Your task to perform on an android device: toggle translation in the chrome app Image 0: 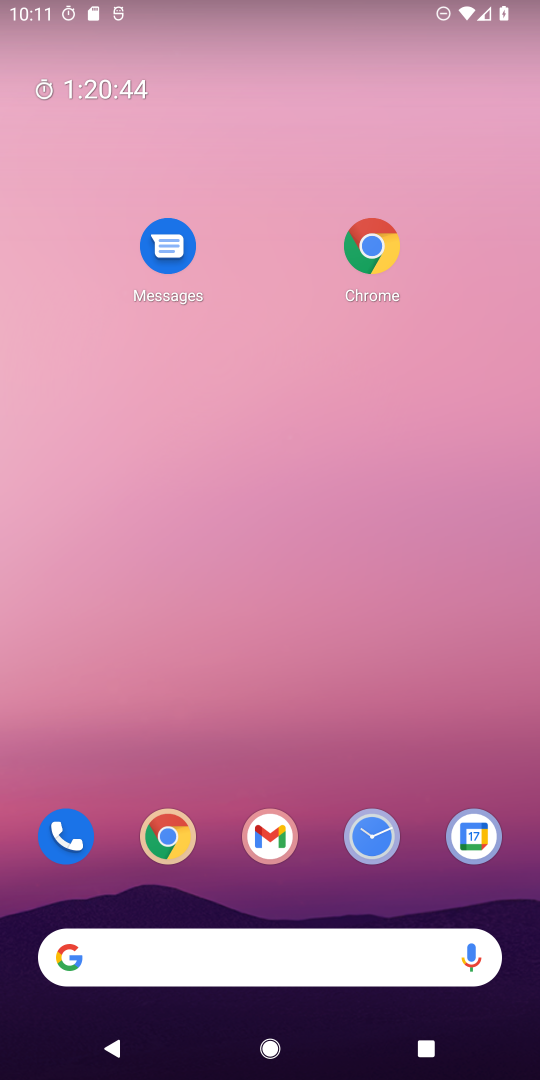
Step 0: drag from (182, 638) to (183, 149)
Your task to perform on an android device: toggle translation in the chrome app Image 1: 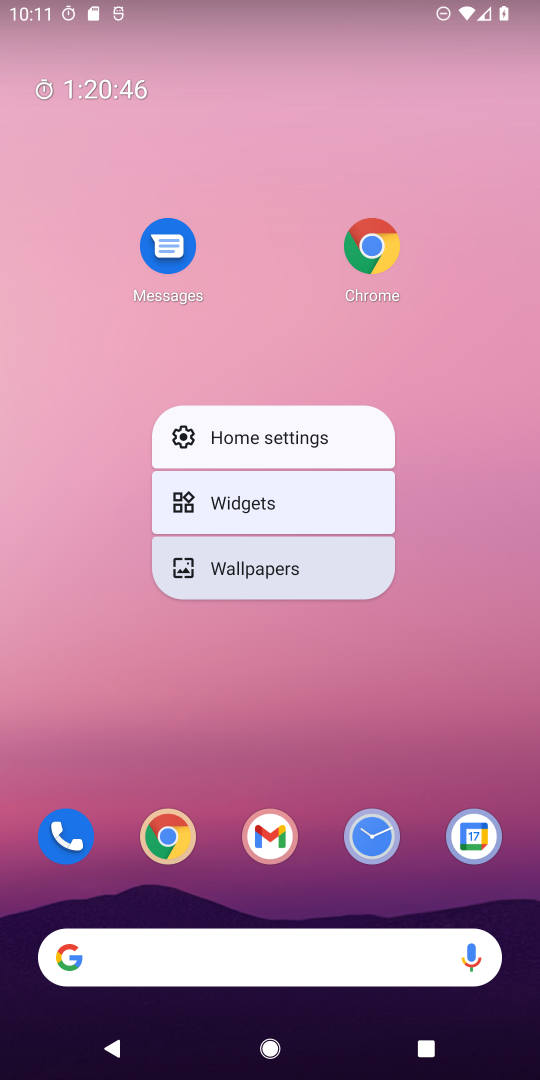
Step 1: click (334, 747)
Your task to perform on an android device: toggle translation in the chrome app Image 2: 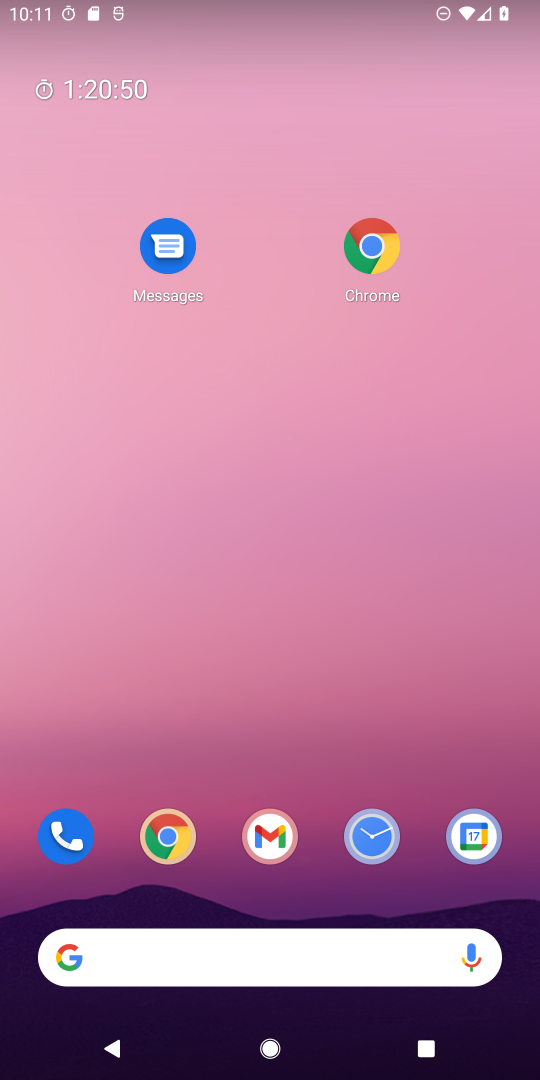
Step 2: drag from (310, 696) to (321, 400)
Your task to perform on an android device: toggle translation in the chrome app Image 3: 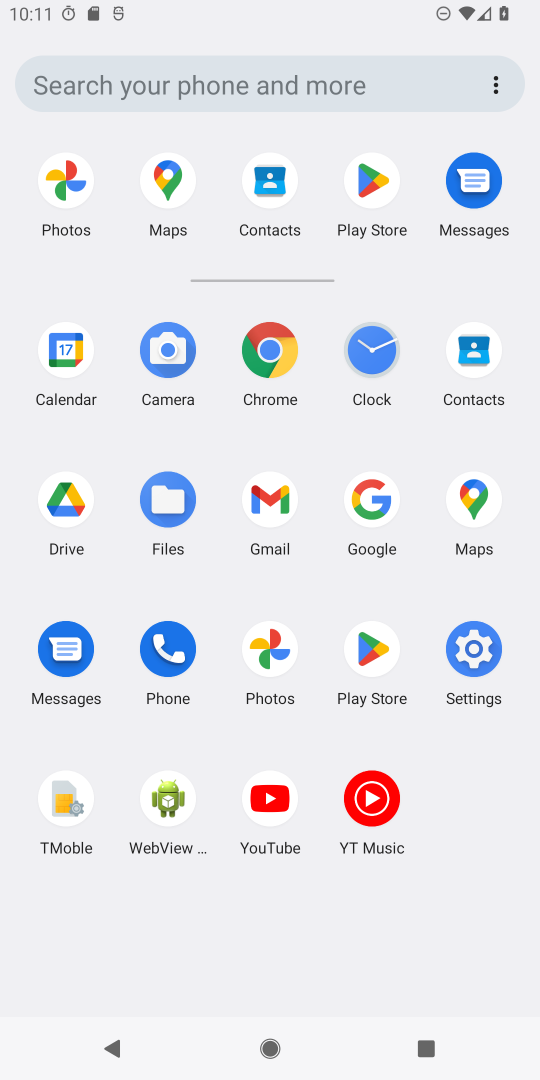
Step 3: click (256, 346)
Your task to perform on an android device: toggle translation in the chrome app Image 4: 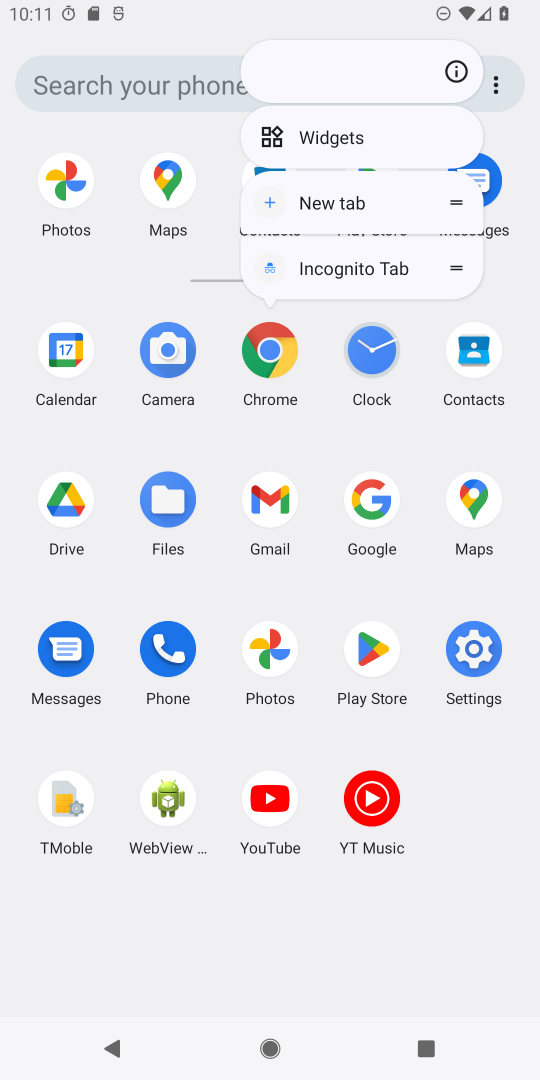
Step 4: click (280, 347)
Your task to perform on an android device: toggle translation in the chrome app Image 5: 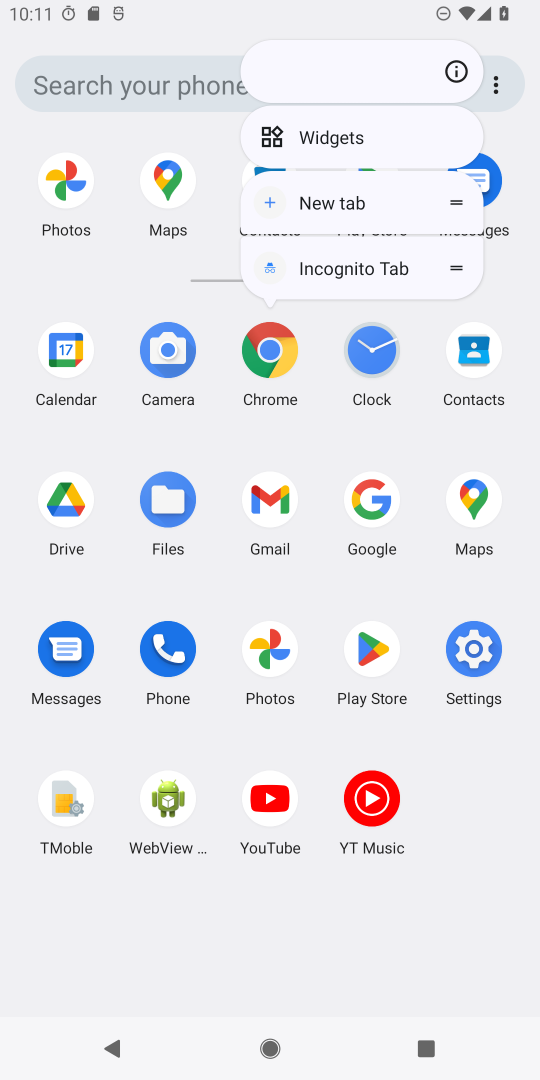
Step 5: click (282, 347)
Your task to perform on an android device: toggle translation in the chrome app Image 6: 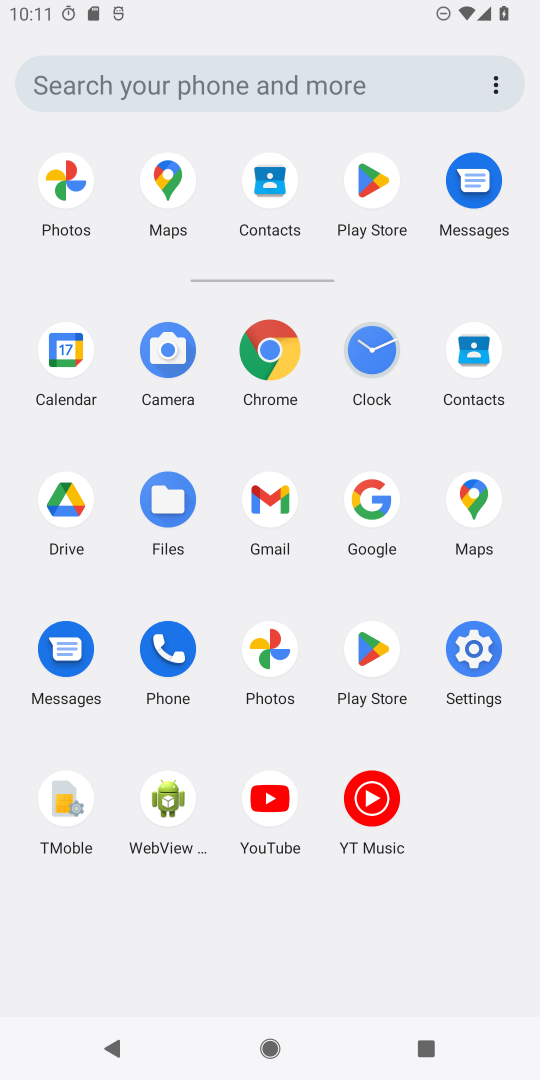
Step 6: click (282, 347)
Your task to perform on an android device: toggle translation in the chrome app Image 7: 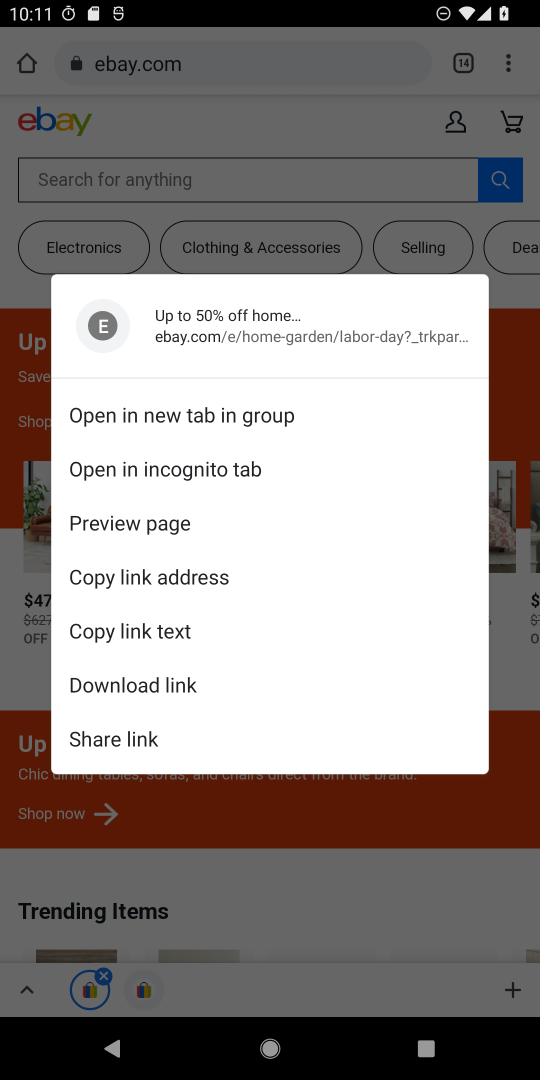
Step 7: click (514, 57)
Your task to perform on an android device: toggle translation in the chrome app Image 8: 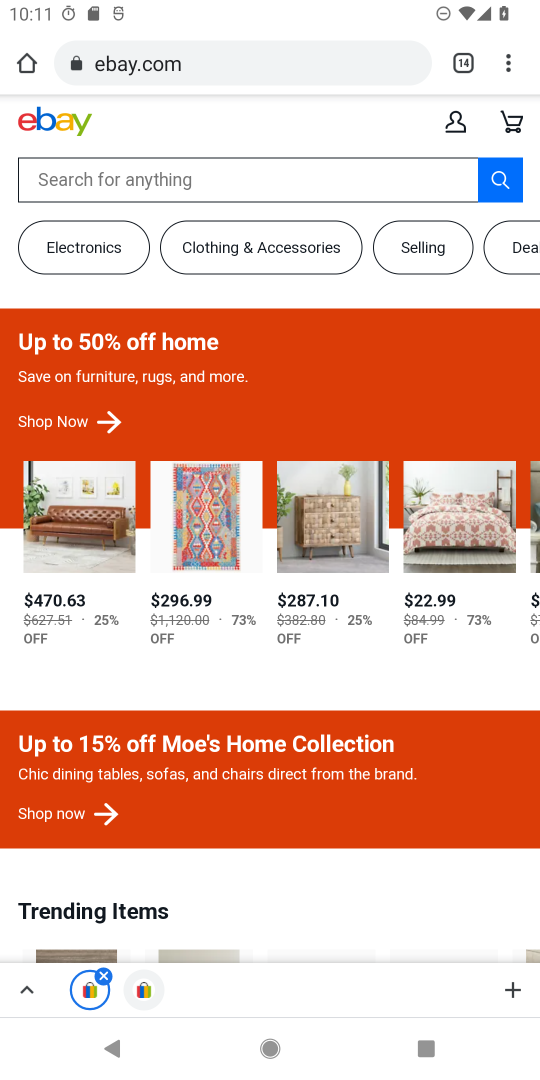
Step 8: click (495, 60)
Your task to perform on an android device: toggle translation in the chrome app Image 9: 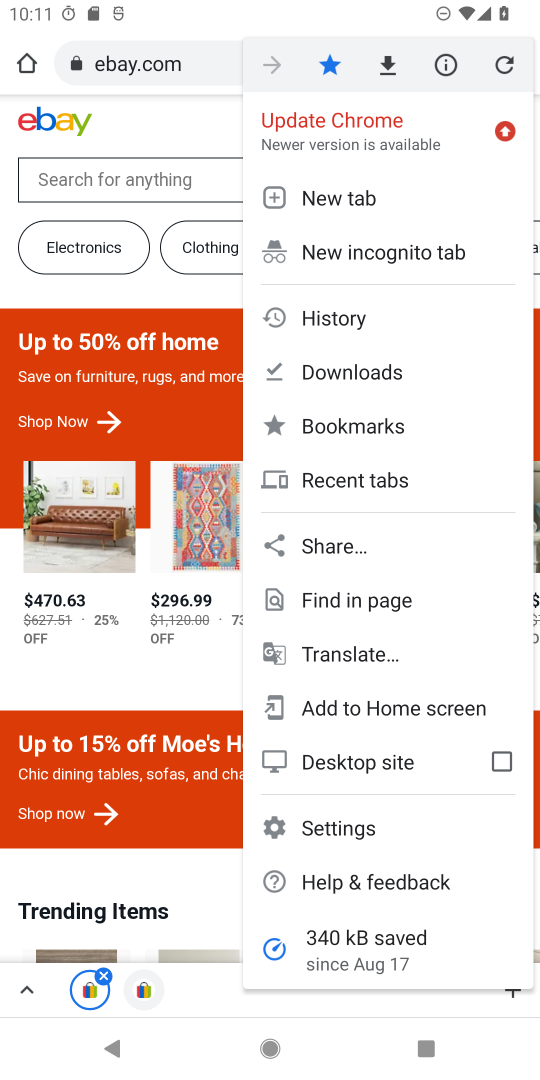
Step 9: click (352, 820)
Your task to perform on an android device: toggle translation in the chrome app Image 10: 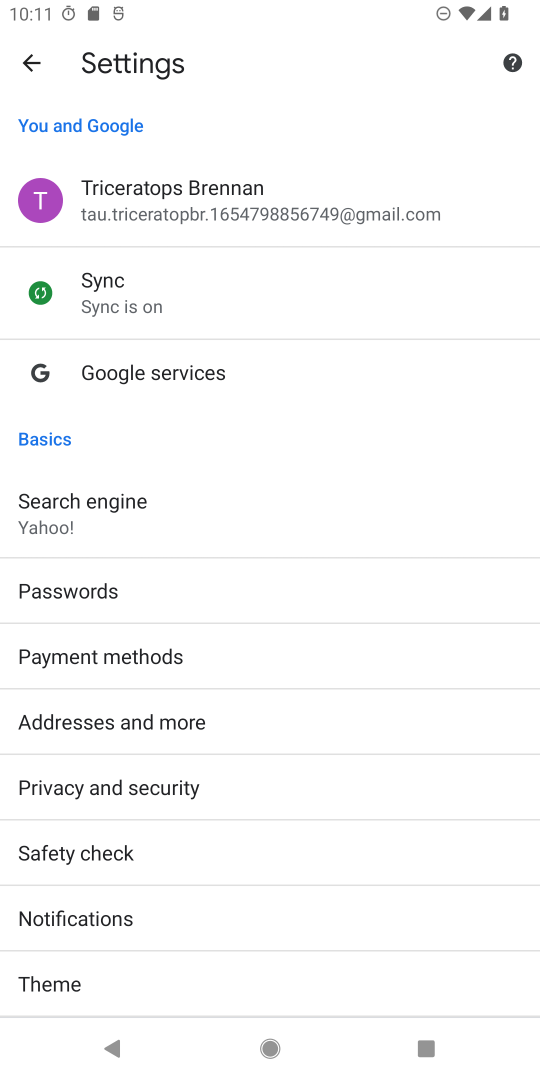
Step 10: drag from (125, 884) to (222, 122)
Your task to perform on an android device: toggle translation in the chrome app Image 11: 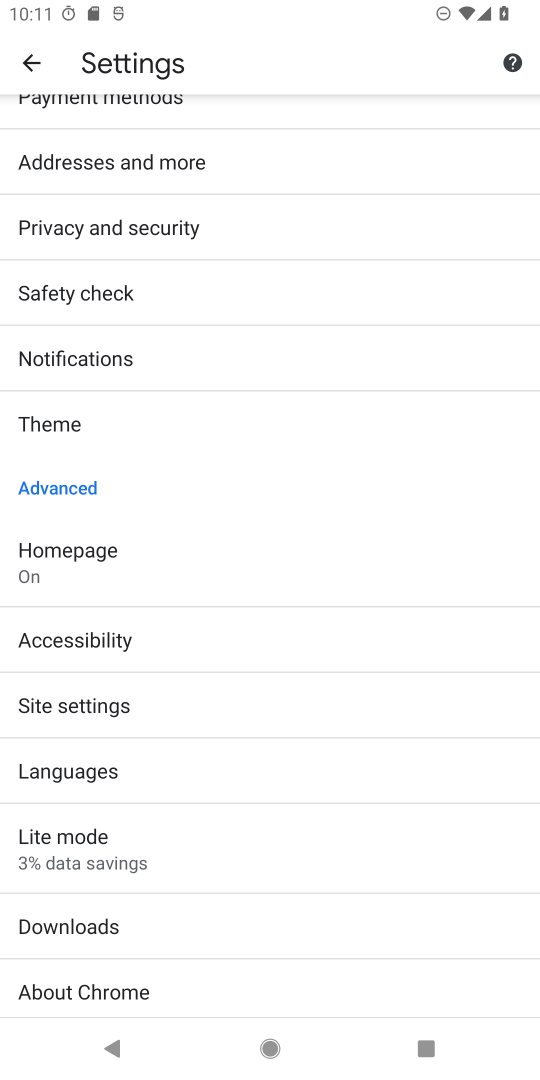
Step 11: click (144, 757)
Your task to perform on an android device: toggle translation in the chrome app Image 12: 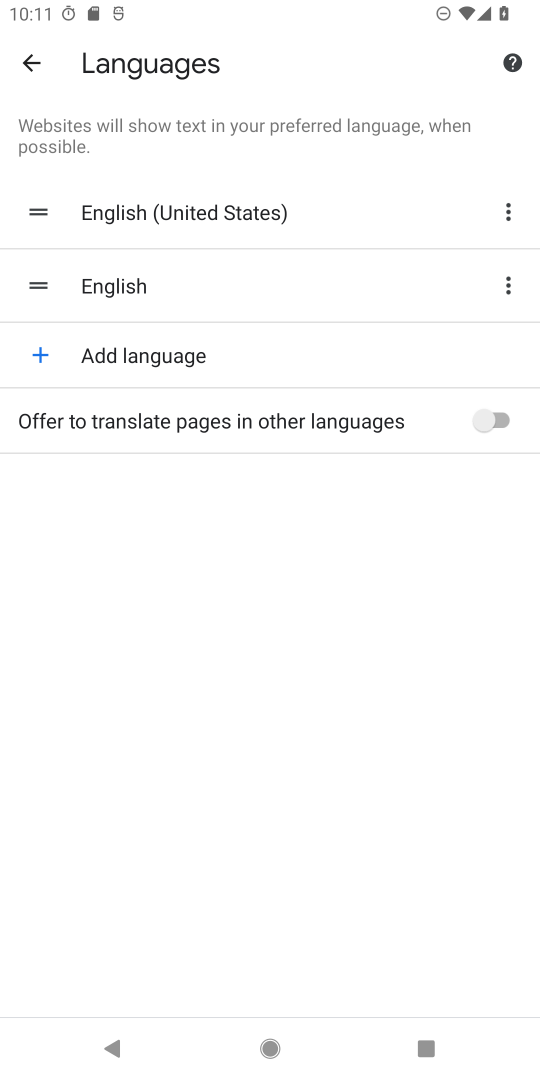
Step 12: click (487, 410)
Your task to perform on an android device: toggle translation in the chrome app Image 13: 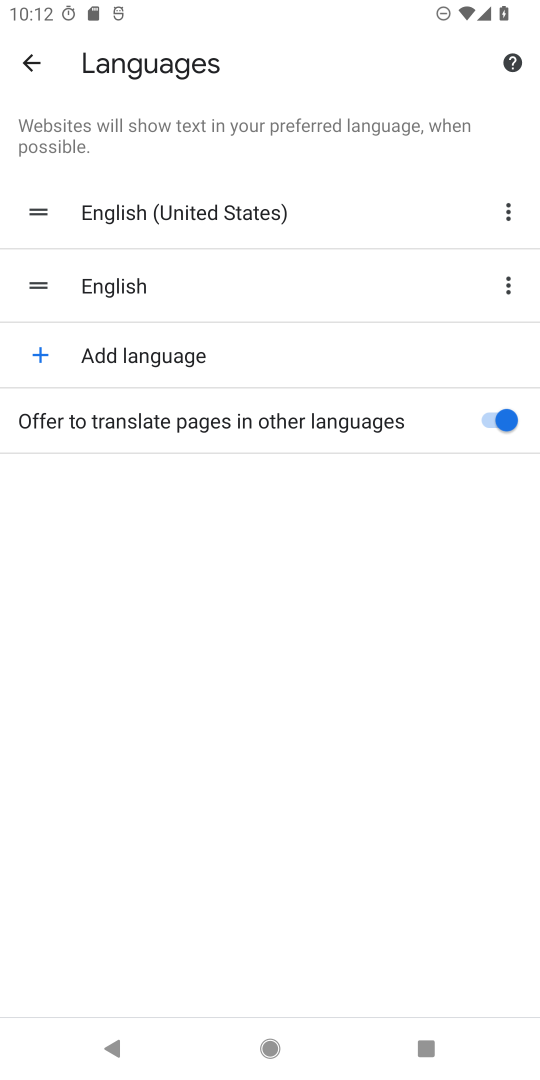
Step 13: task complete